Your task to perform on an android device: turn on the 24-hour format for clock Image 0: 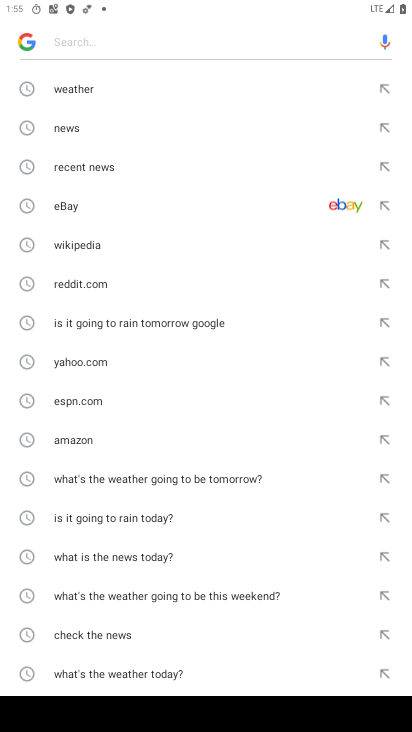
Step 0: press home button
Your task to perform on an android device: turn on the 24-hour format for clock Image 1: 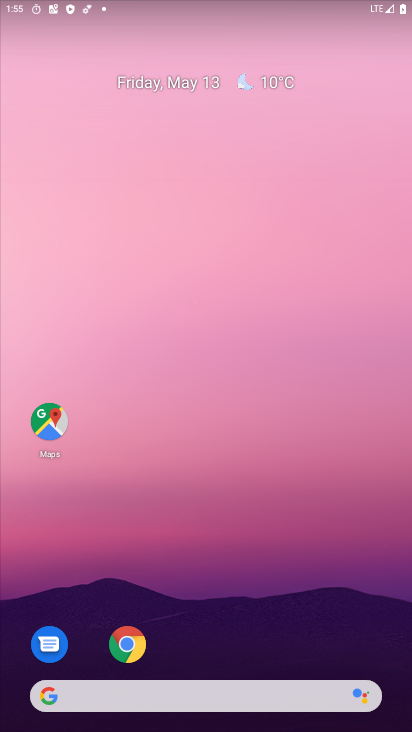
Step 1: drag from (230, 694) to (341, 2)
Your task to perform on an android device: turn on the 24-hour format for clock Image 2: 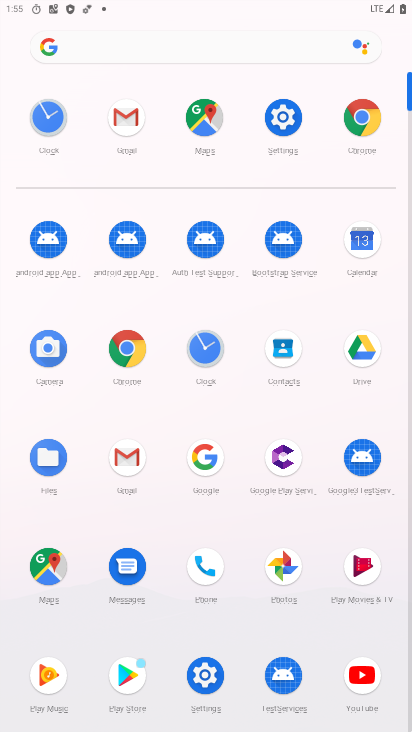
Step 2: click (211, 340)
Your task to perform on an android device: turn on the 24-hour format for clock Image 3: 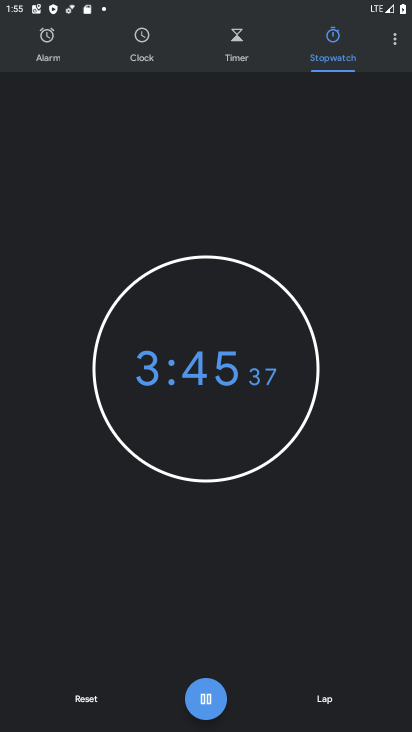
Step 3: click (389, 42)
Your task to perform on an android device: turn on the 24-hour format for clock Image 4: 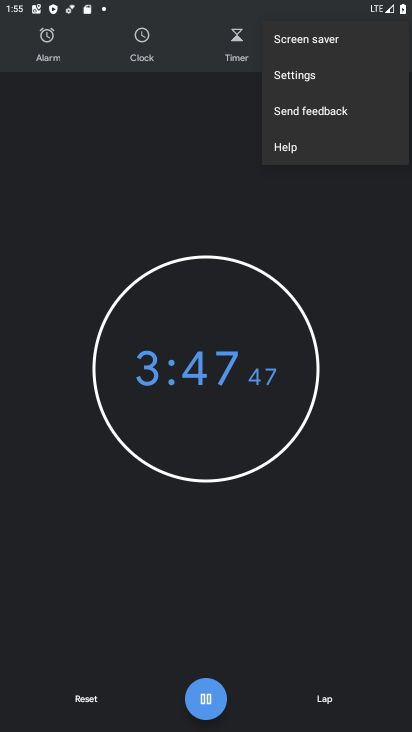
Step 4: click (303, 85)
Your task to perform on an android device: turn on the 24-hour format for clock Image 5: 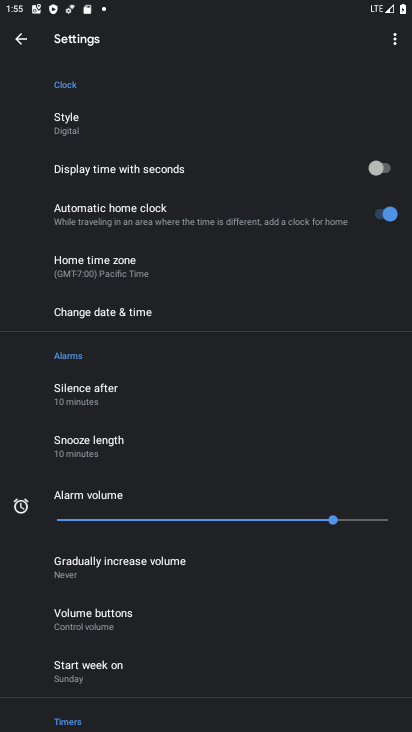
Step 5: click (143, 309)
Your task to perform on an android device: turn on the 24-hour format for clock Image 6: 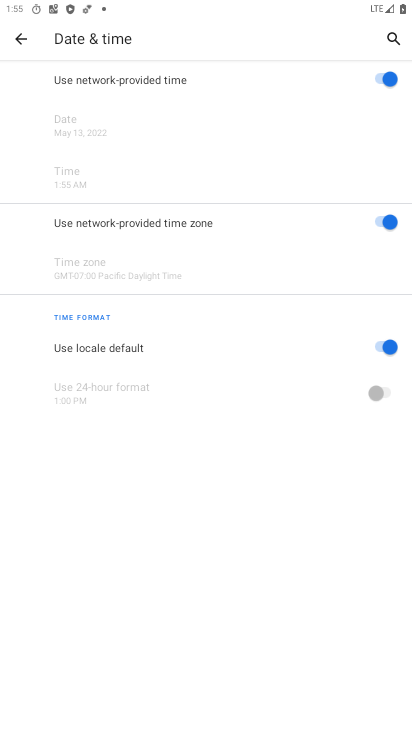
Step 6: click (387, 346)
Your task to perform on an android device: turn on the 24-hour format for clock Image 7: 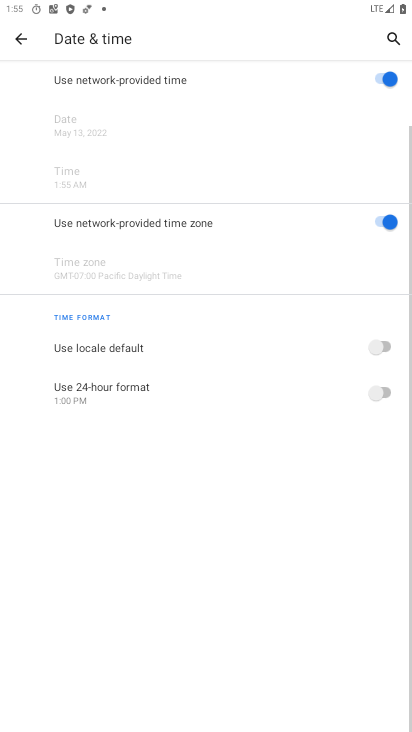
Step 7: click (385, 387)
Your task to perform on an android device: turn on the 24-hour format for clock Image 8: 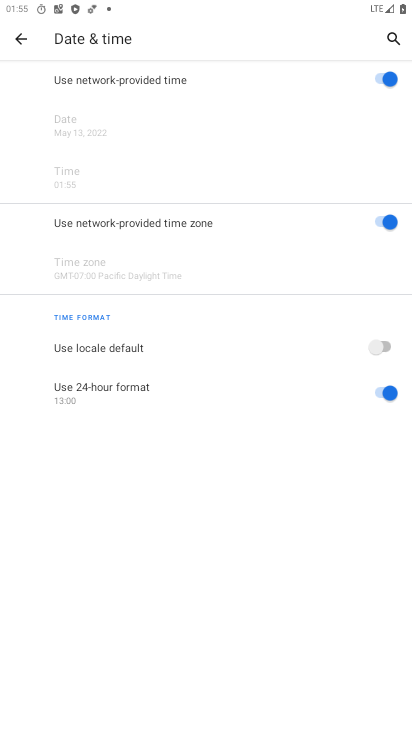
Step 8: task complete